Your task to perform on an android device: Open the Play Movies app and select the watchlist tab. Image 0: 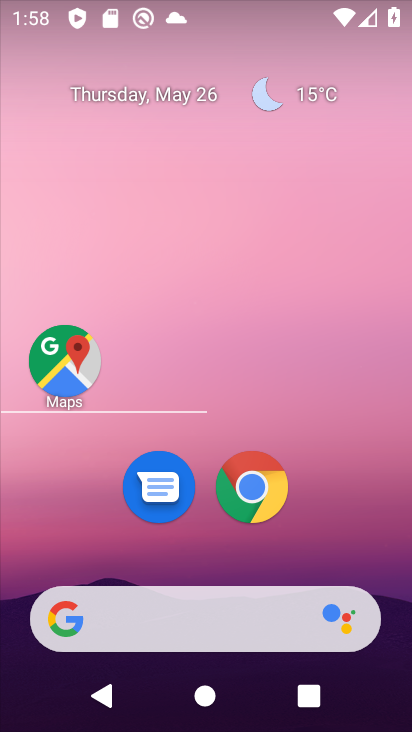
Step 0: drag from (221, 498) to (223, 177)
Your task to perform on an android device: Open the Play Movies app and select the watchlist tab. Image 1: 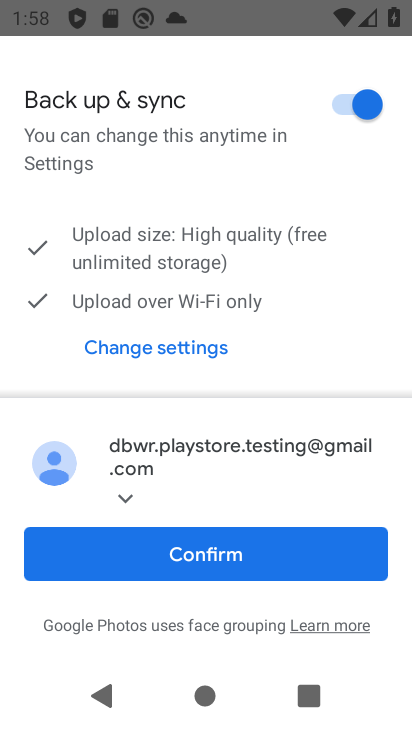
Step 1: click (310, 568)
Your task to perform on an android device: Open the Play Movies app and select the watchlist tab. Image 2: 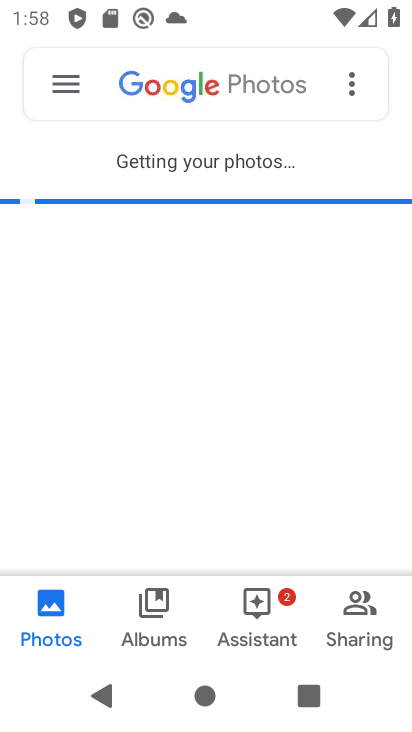
Step 2: press home button
Your task to perform on an android device: Open the Play Movies app and select the watchlist tab. Image 3: 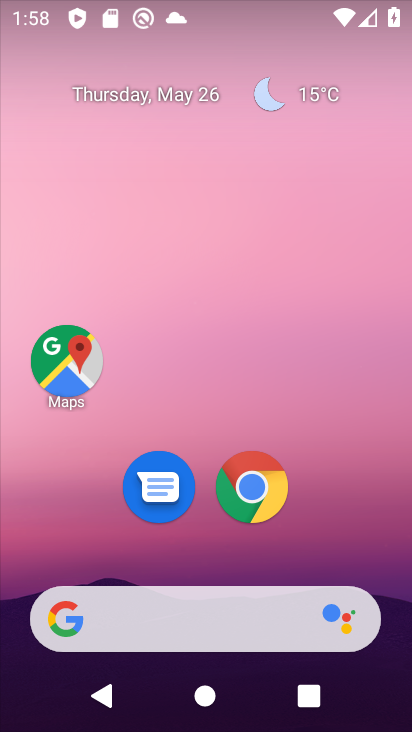
Step 3: drag from (226, 559) to (260, 196)
Your task to perform on an android device: Open the Play Movies app and select the watchlist tab. Image 4: 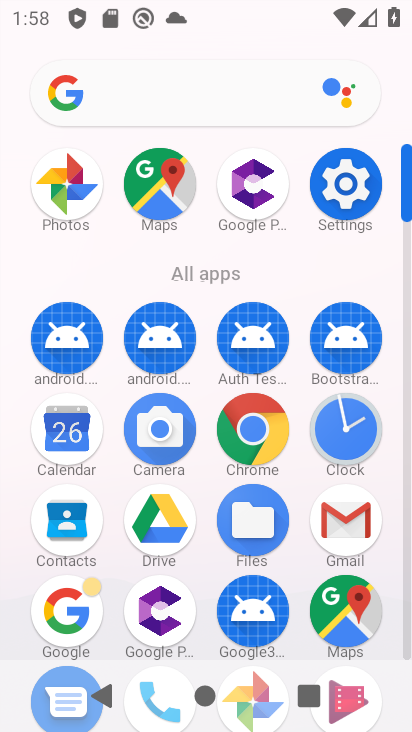
Step 4: drag from (312, 558) to (290, 305)
Your task to perform on an android device: Open the Play Movies app and select the watchlist tab. Image 5: 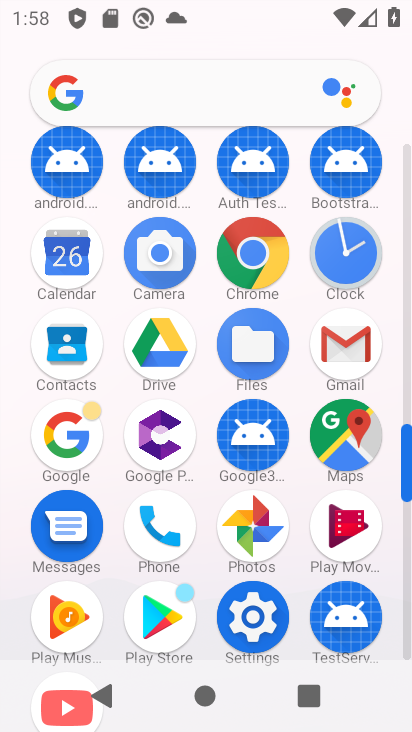
Step 5: click (340, 519)
Your task to perform on an android device: Open the Play Movies app and select the watchlist tab. Image 6: 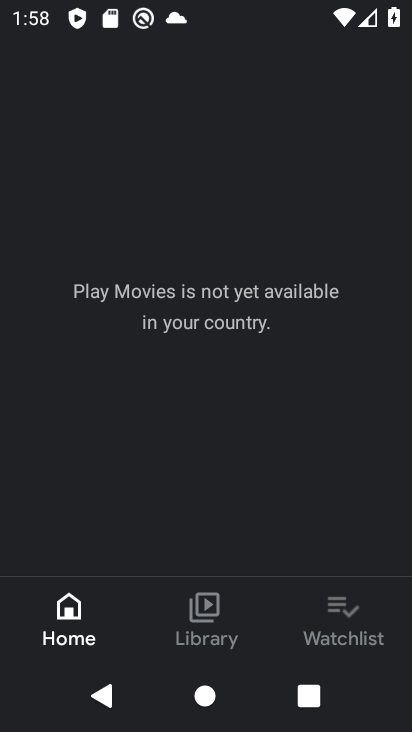
Step 6: click (351, 617)
Your task to perform on an android device: Open the Play Movies app and select the watchlist tab. Image 7: 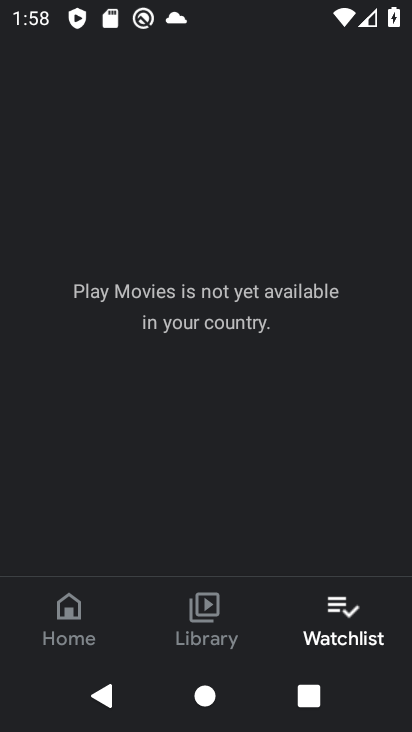
Step 7: task complete